Your task to perform on an android device: turn off javascript in the chrome app Image 0: 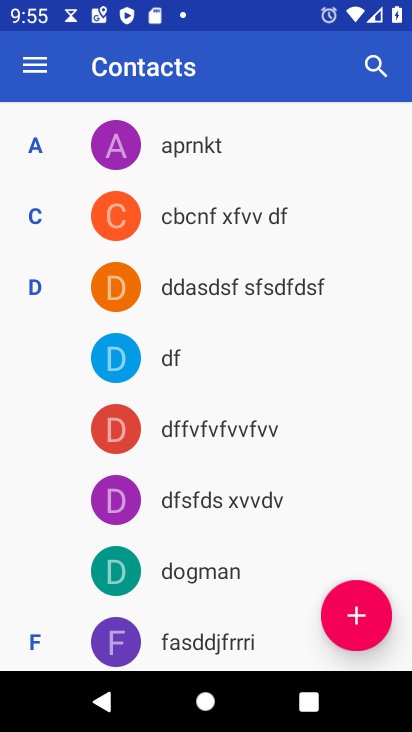
Step 0: press home button
Your task to perform on an android device: turn off javascript in the chrome app Image 1: 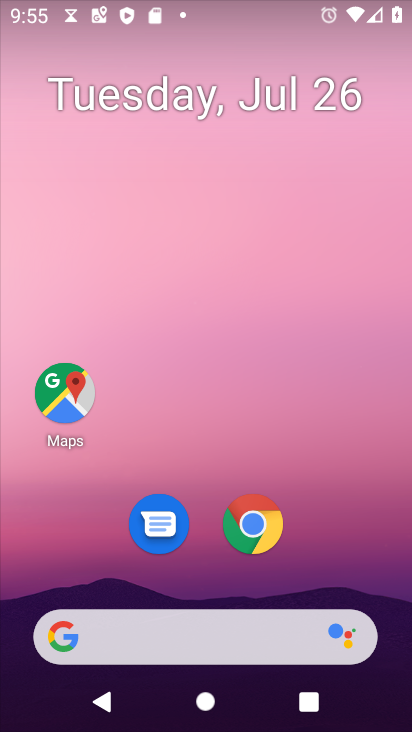
Step 1: click (248, 528)
Your task to perform on an android device: turn off javascript in the chrome app Image 2: 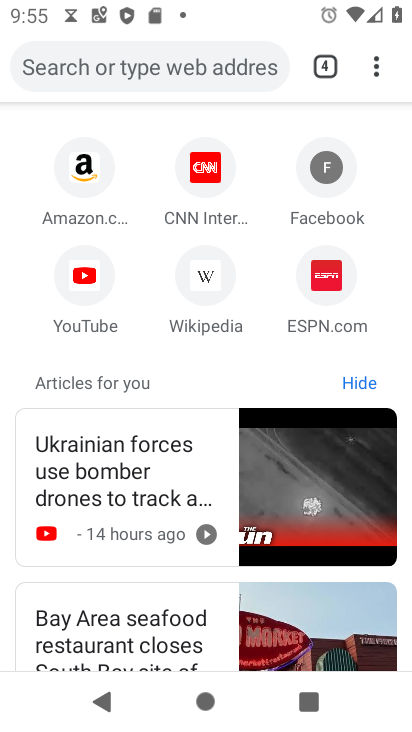
Step 2: drag from (375, 69) to (234, 548)
Your task to perform on an android device: turn off javascript in the chrome app Image 3: 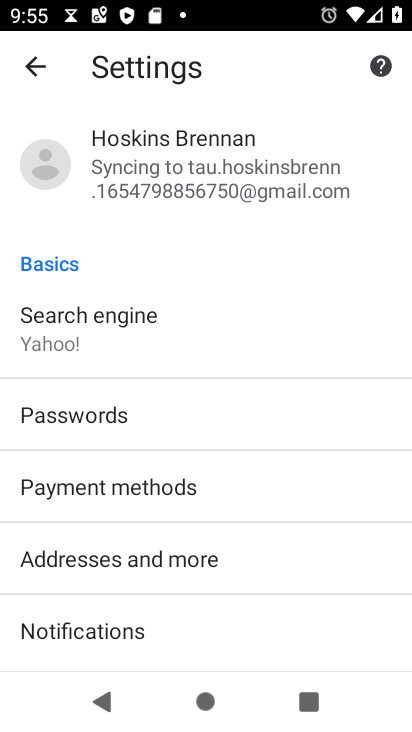
Step 3: drag from (231, 506) to (411, 99)
Your task to perform on an android device: turn off javascript in the chrome app Image 4: 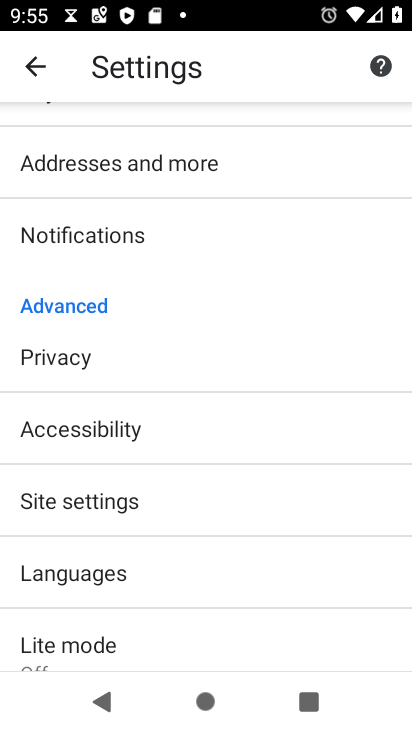
Step 4: click (121, 505)
Your task to perform on an android device: turn off javascript in the chrome app Image 5: 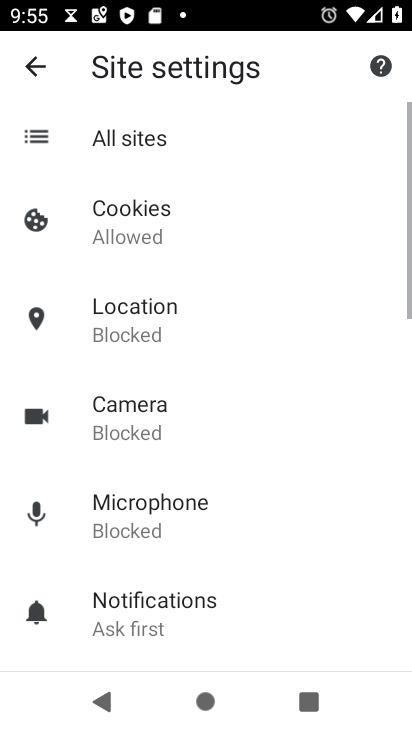
Step 5: drag from (174, 570) to (342, 91)
Your task to perform on an android device: turn off javascript in the chrome app Image 6: 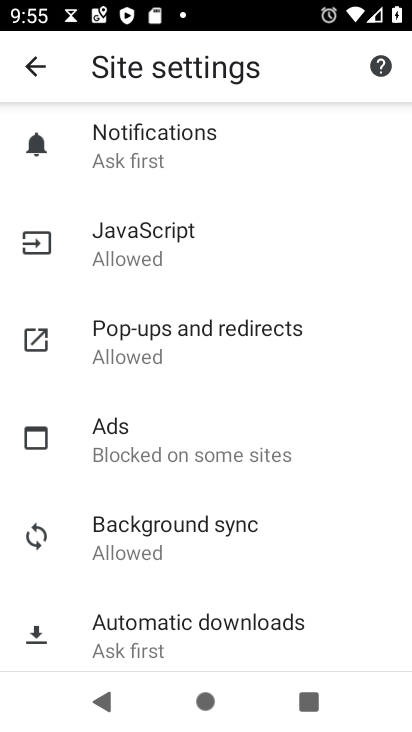
Step 6: click (162, 250)
Your task to perform on an android device: turn off javascript in the chrome app Image 7: 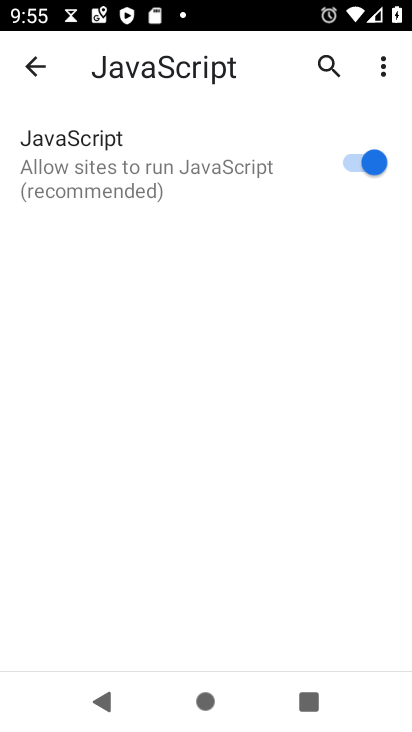
Step 7: click (356, 153)
Your task to perform on an android device: turn off javascript in the chrome app Image 8: 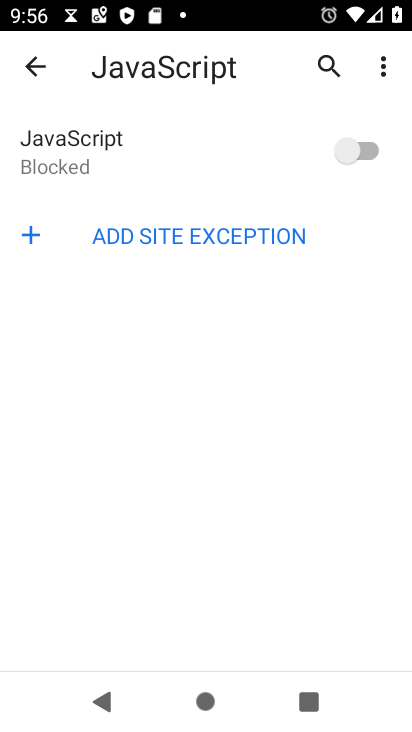
Step 8: task complete